Your task to perform on an android device: open sync settings in chrome Image 0: 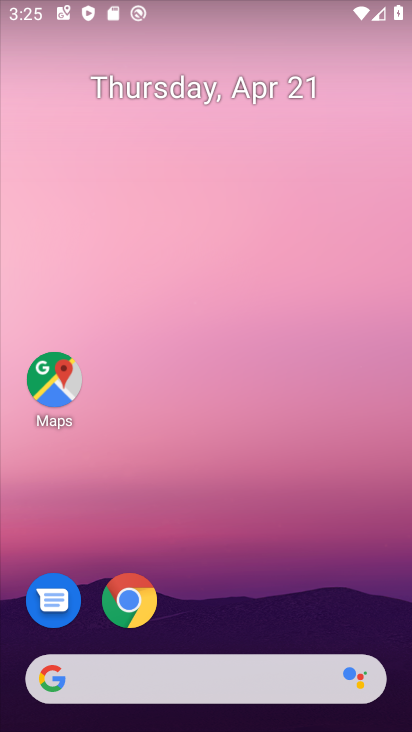
Step 0: click (130, 601)
Your task to perform on an android device: open sync settings in chrome Image 1: 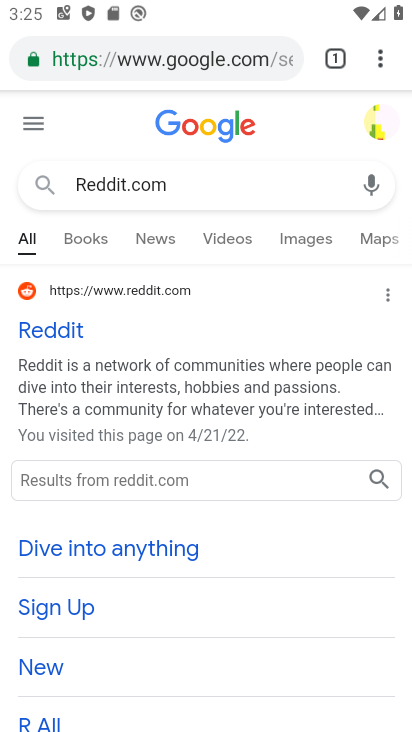
Step 1: click (391, 57)
Your task to perform on an android device: open sync settings in chrome Image 2: 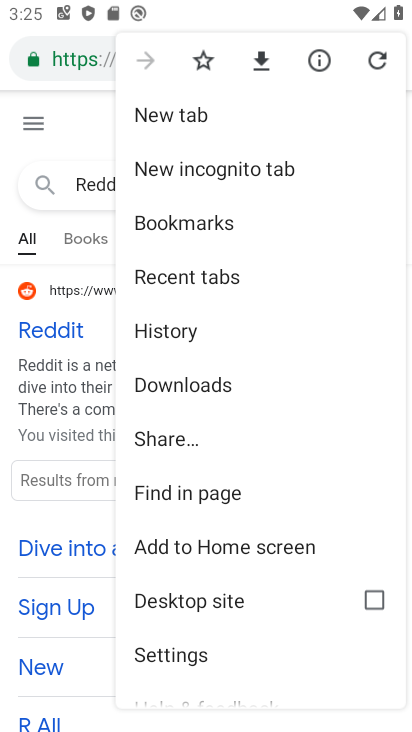
Step 2: click (186, 655)
Your task to perform on an android device: open sync settings in chrome Image 3: 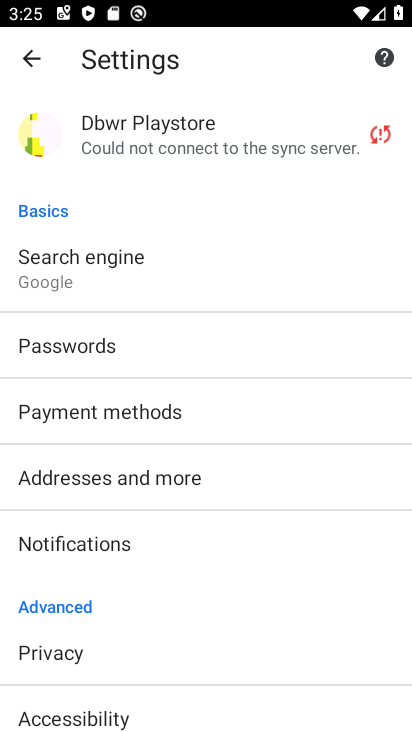
Step 3: drag from (156, 586) to (236, 466)
Your task to perform on an android device: open sync settings in chrome Image 4: 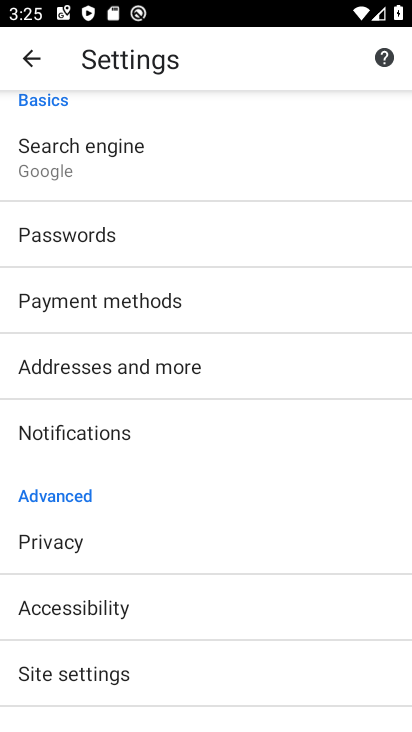
Step 4: drag from (181, 610) to (263, 499)
Your task to perform on an android device: open sync settings in chrome Image 5: 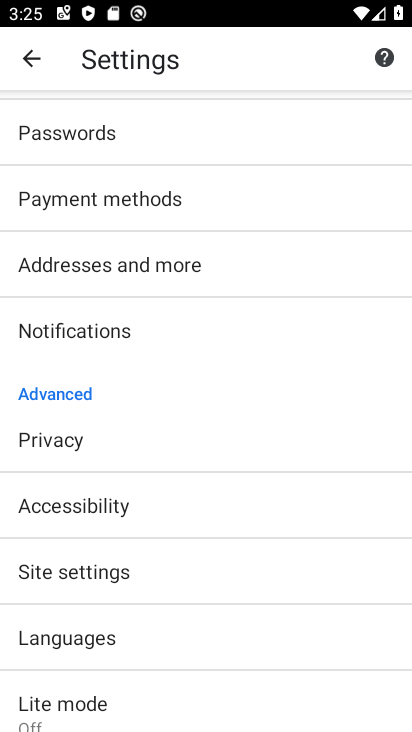
Step 5: click (104, 566)
Your task to perform on an android device: open sync settings in chrome Image 6: 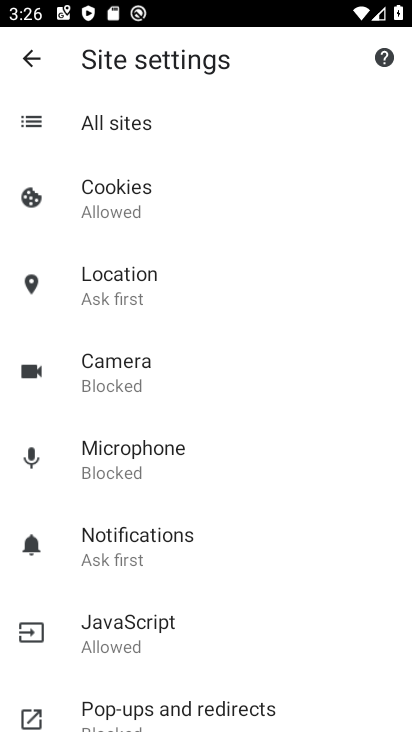
Step 6: drag from (216, 558) to (264, 473)
Your task to perform on an android device: open sync settings in chrome Image 7: 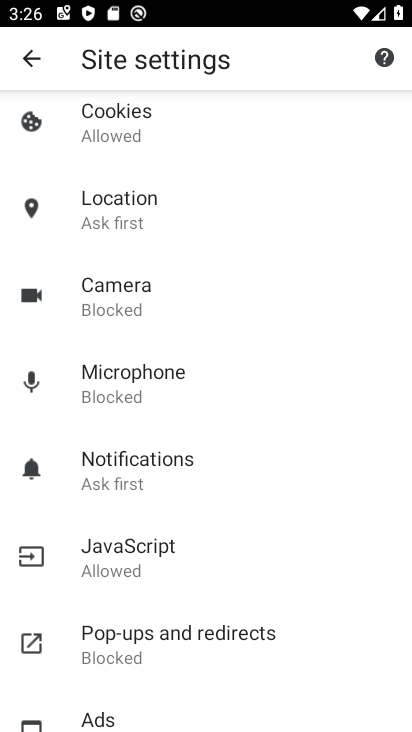
Step 7: drag from (182, 599) to (235, 515)
Your task to perform on an android device: open sync settings in chrome Image 8: 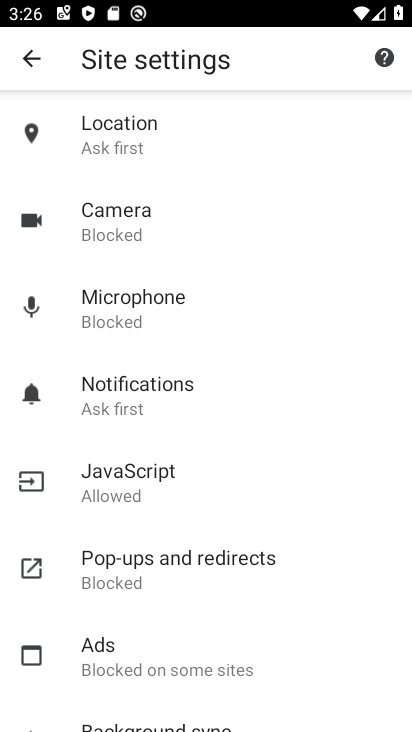
Step 8: drag from (186, 630) to (285, 504)
Your task to perform on an android device: open sync settings in chrome Image 9: 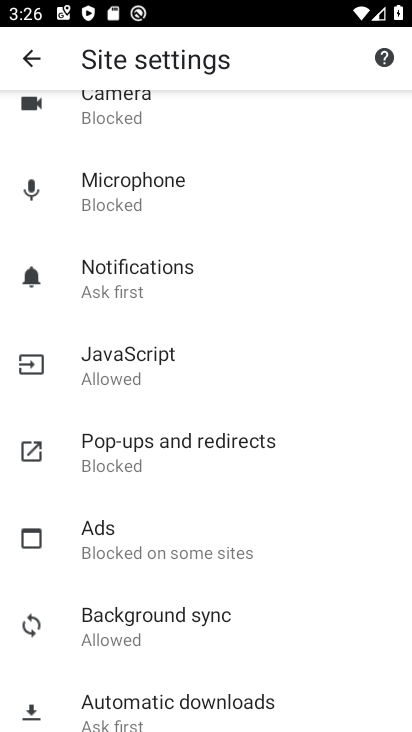
Step 9: click (200, 624)
Your task to perform on an android device: open sync settings in chrome Image 10: 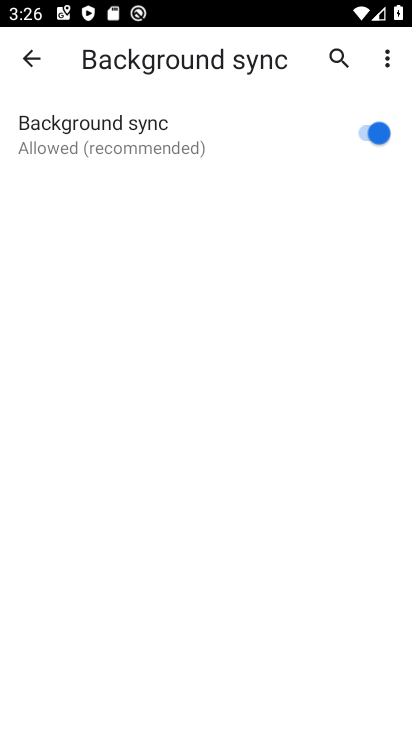
Step 10: task complete